Your task to perform on an android device: all mails in gmail Image 0: 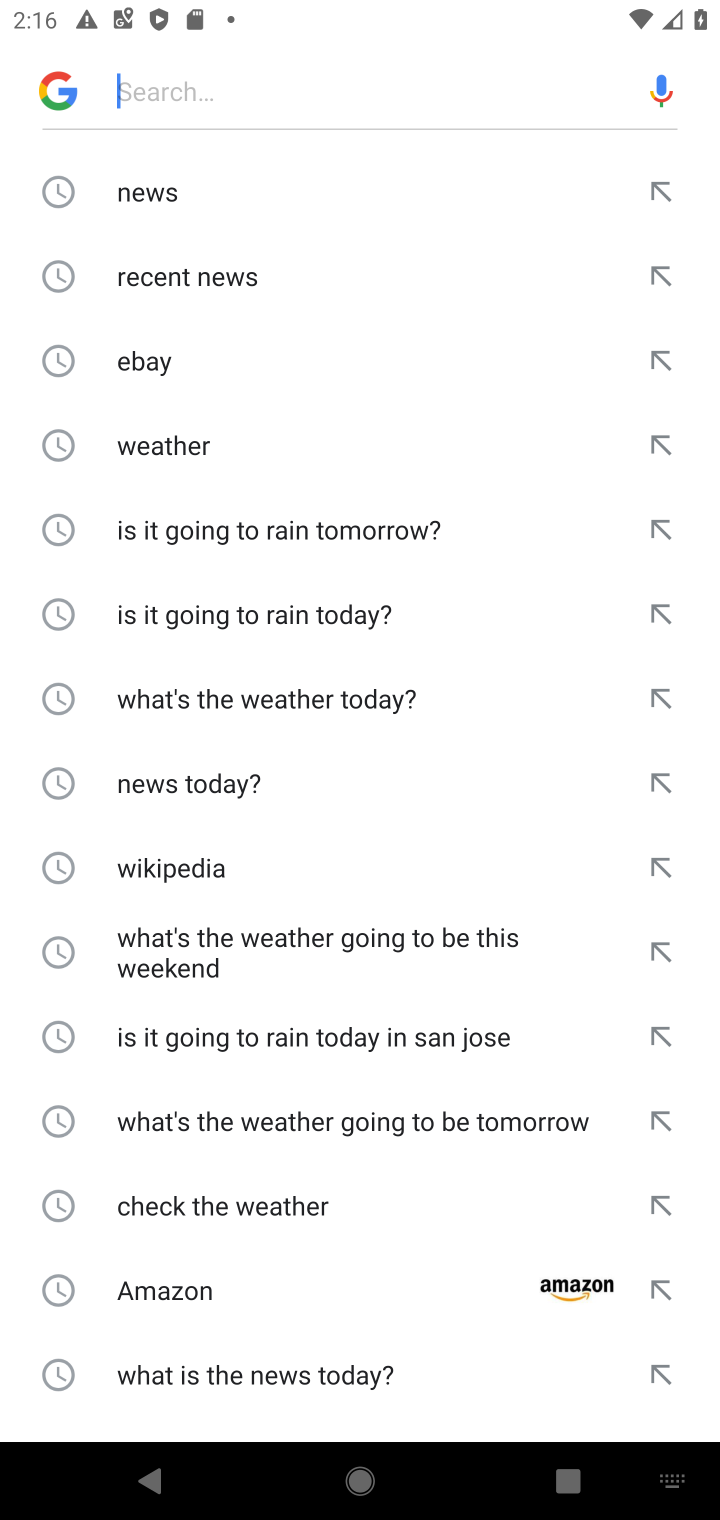
Step 0: press home button
Your task to perform on an android device: all mails in gmail Image 1: 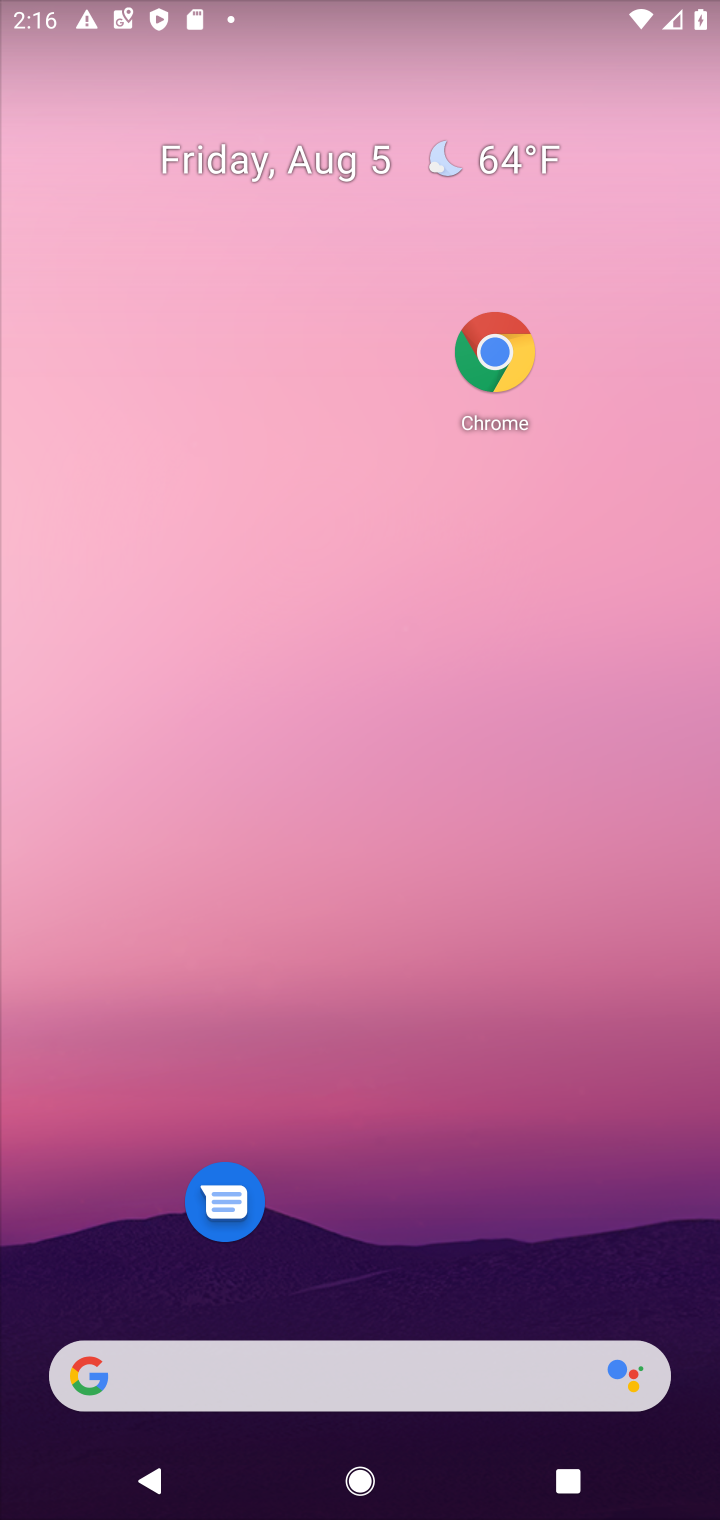
Step 1: drag from (493, 807) to (485, 291)
Your task to perform on an android device: all mails in gmail Image 2: 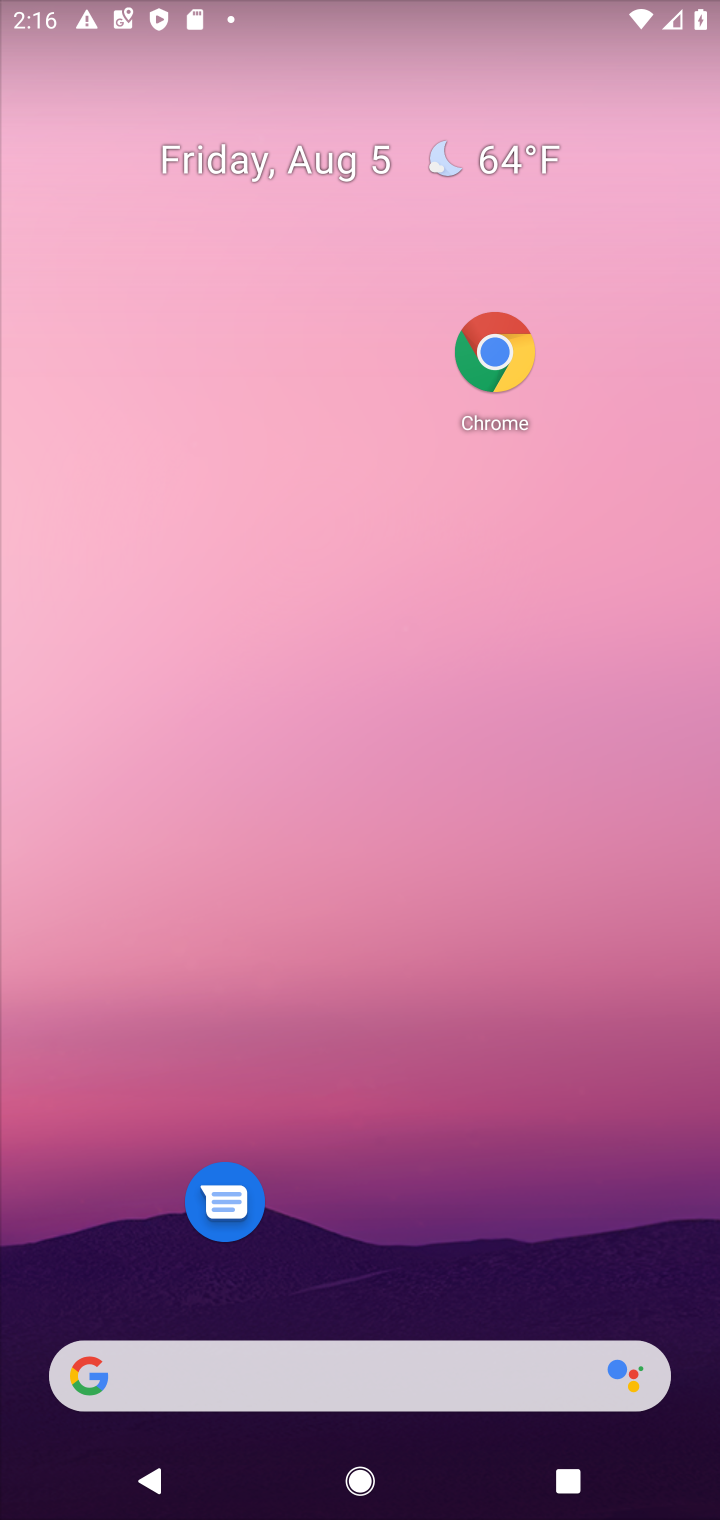
Step 2: drag from (554, 1096) to (447, 264)
Your task to perform on an android device: all mails in gmail Image 3: 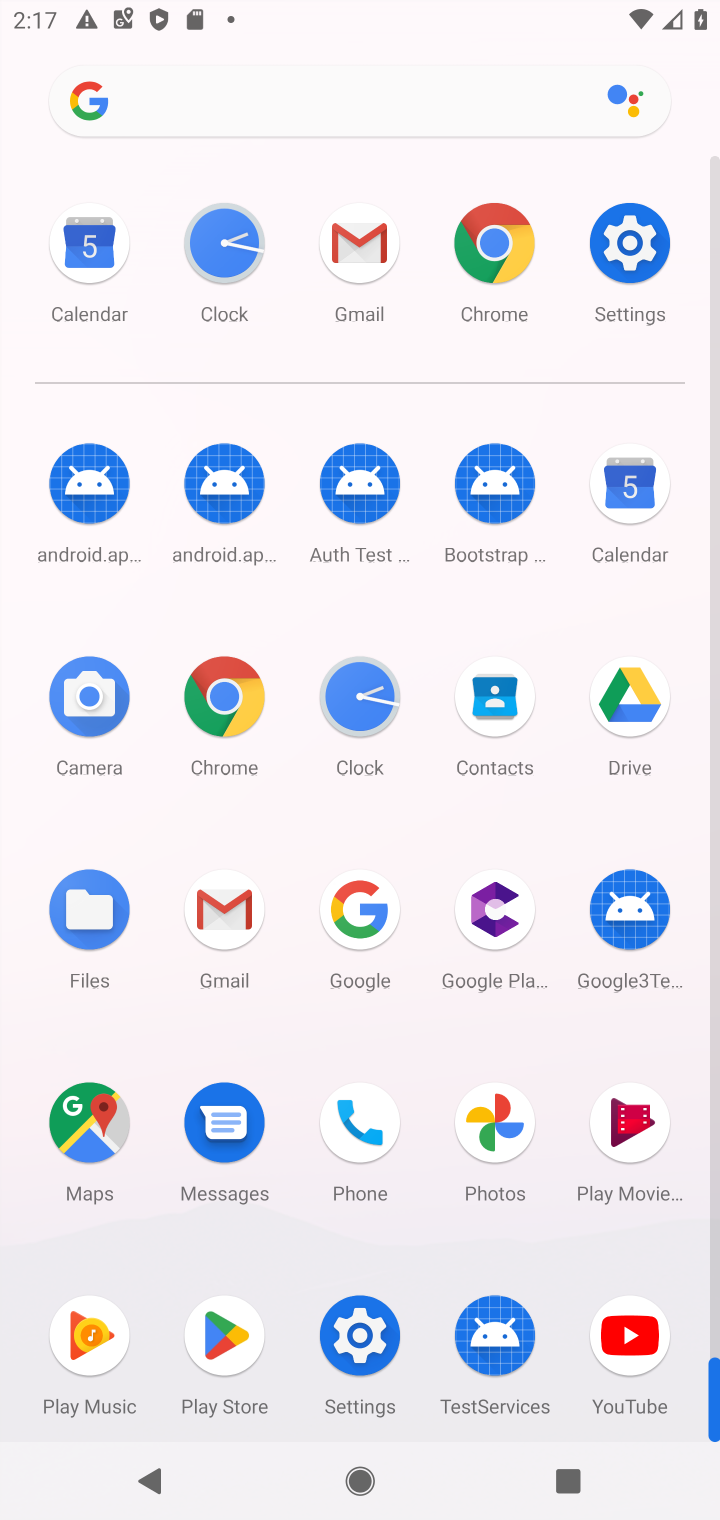
Step 3: click (224, 913)
Your task to perform on an android device: all mails in gmail Image 4: 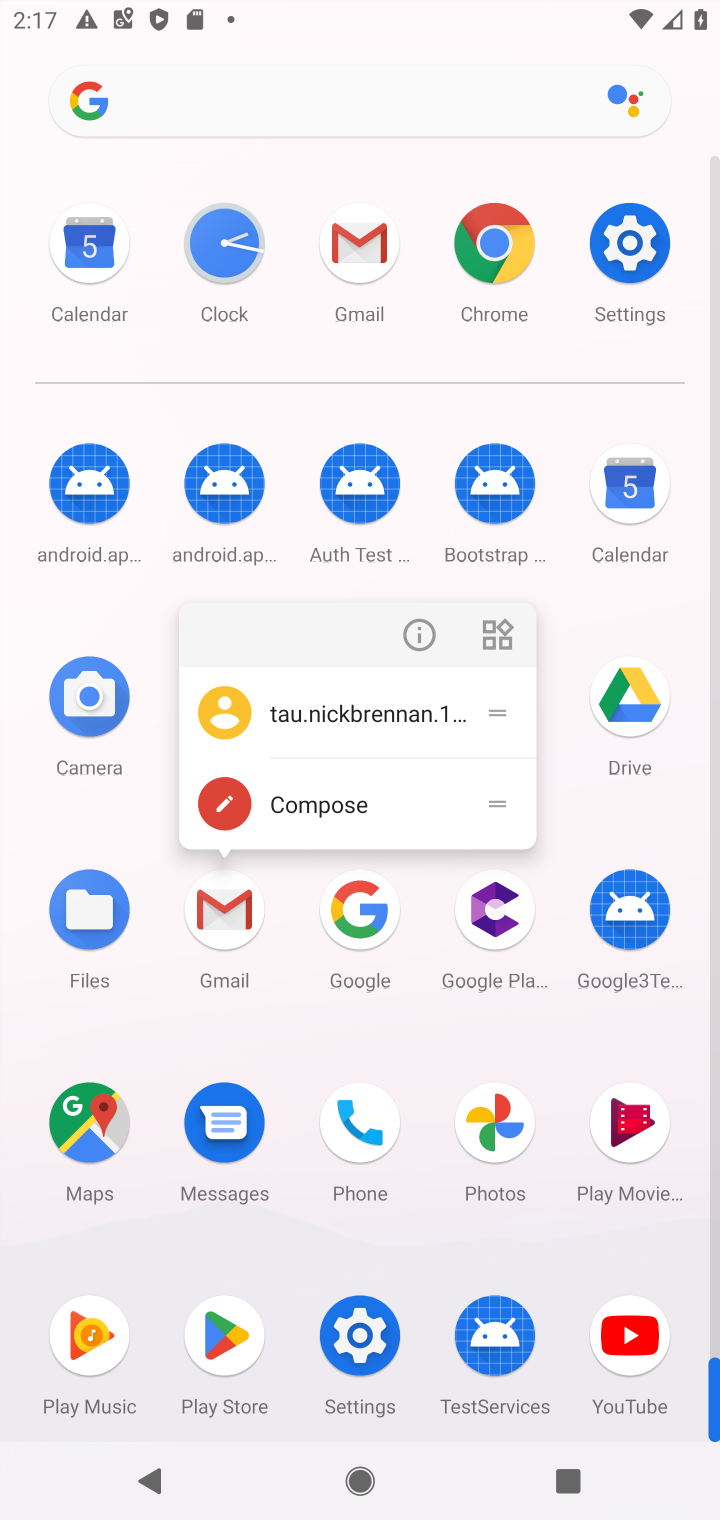
Step 4: click (203, 906)
Your task to perform on an android device: all mails in gmail Image 5: 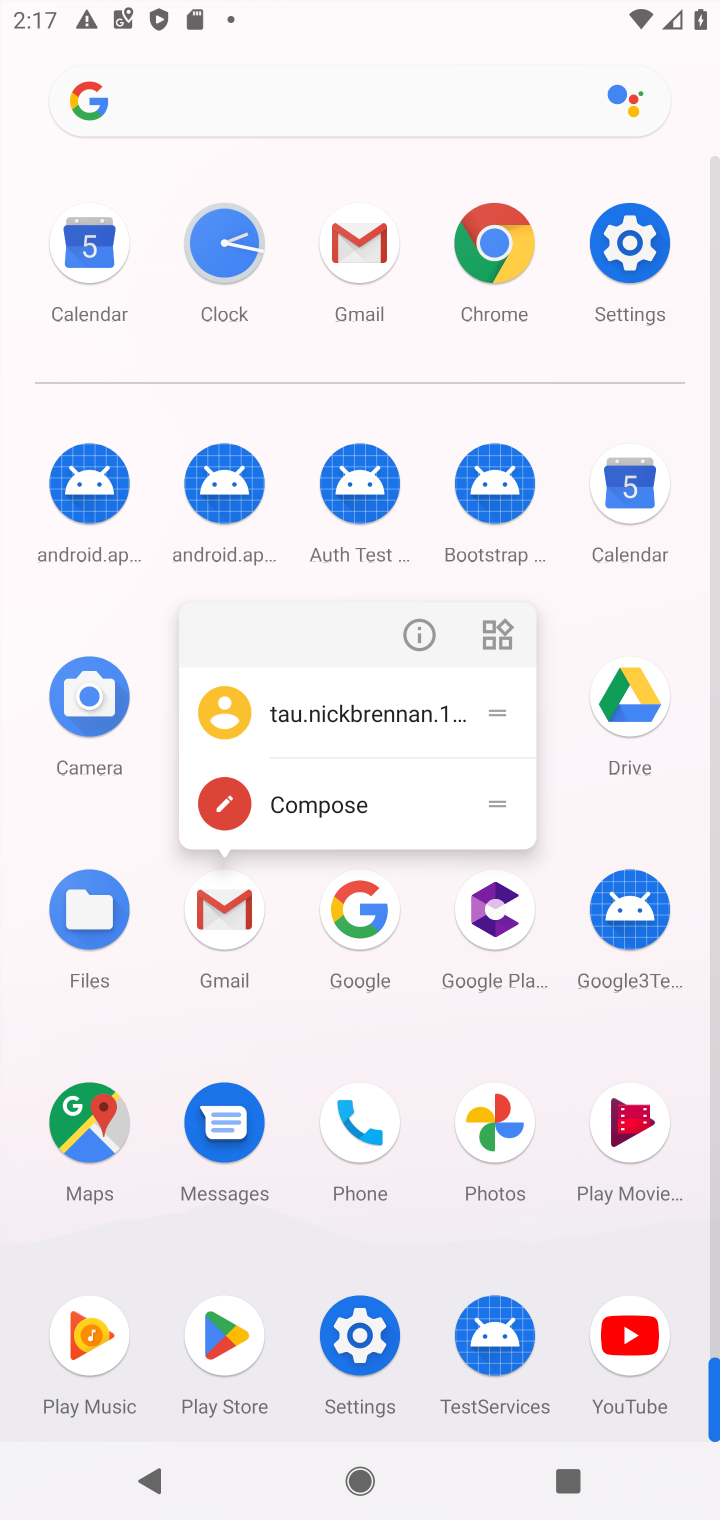
Step 5: click (213, 911)
Your task to perform on an android device: all mails in gmail Image 6: 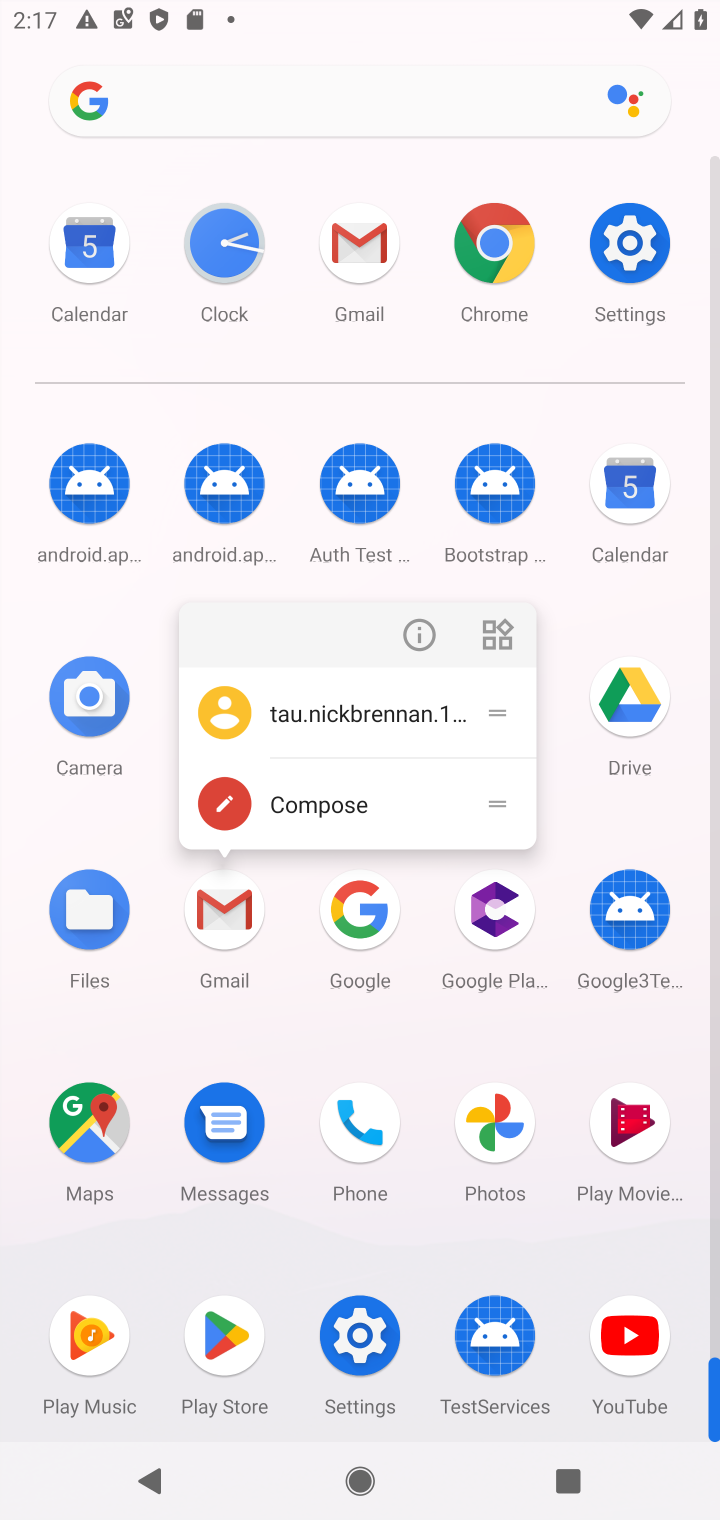
Step 6: click (289, 1016)
Your task to perform on an android device: all mails in gmail Image 7: 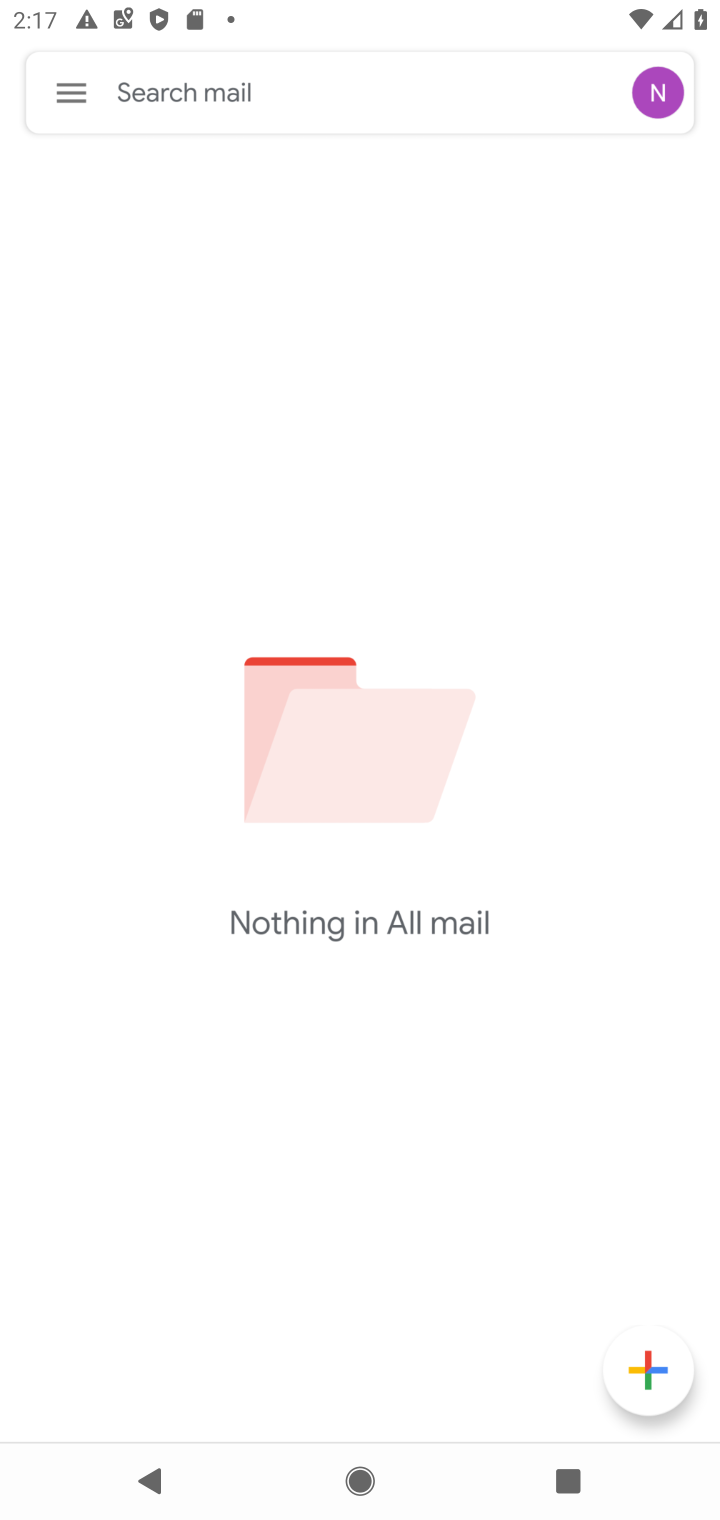
Step 7: click (228, 917)
Your task to perform on an android device: all mails in gmail Image 8: 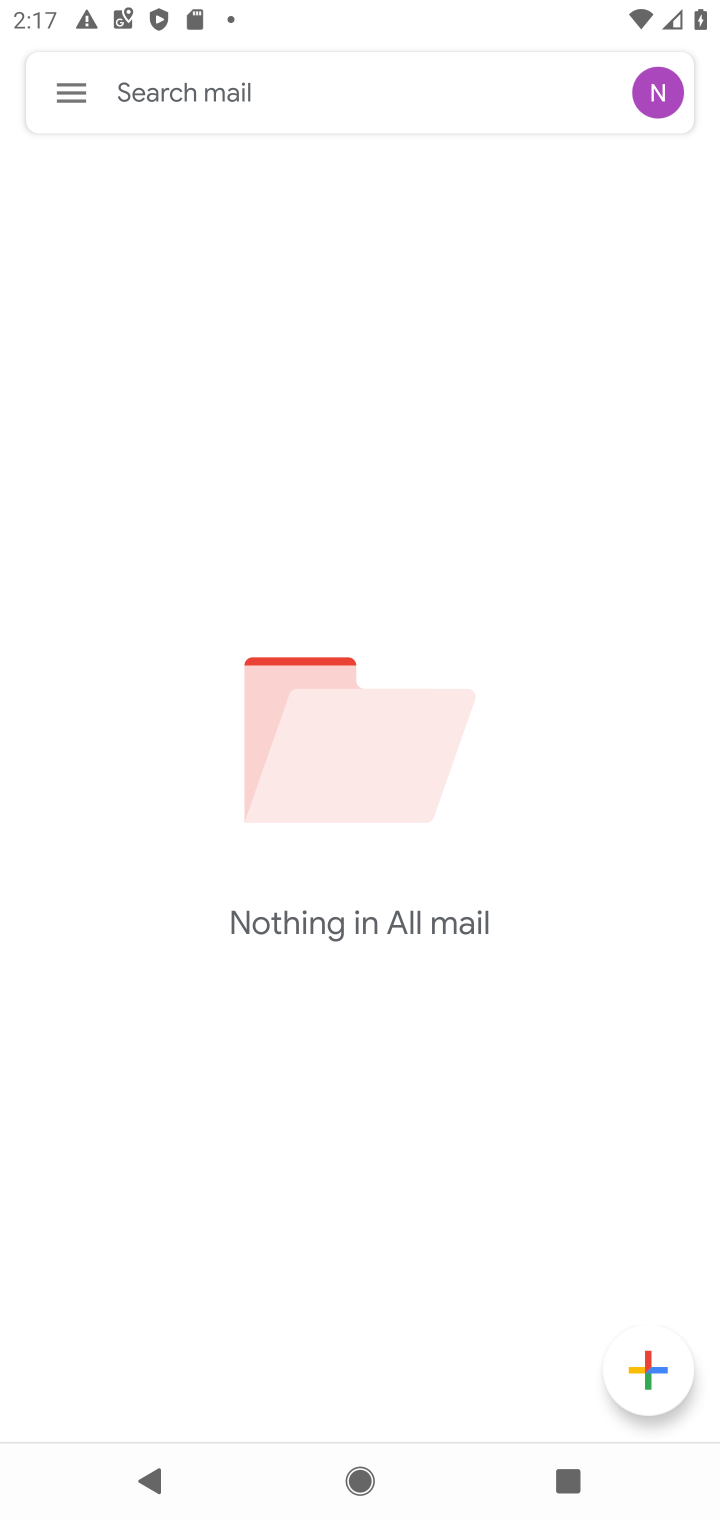
Step 8: task complete